Your task to perform on an android device: Open notification settings Image 0: 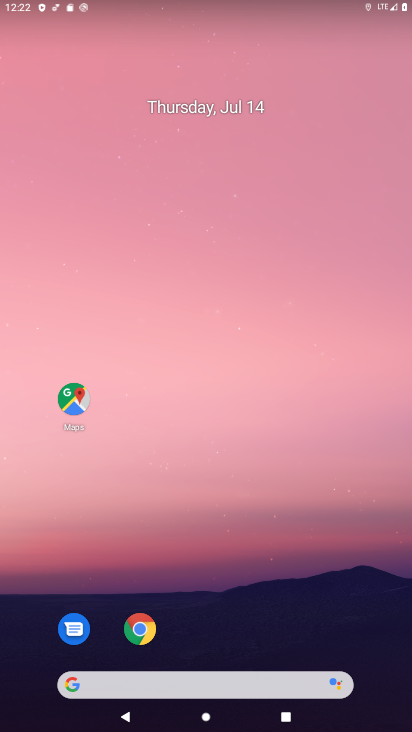
Step 0: drag from (315, 606) to (205, 0)
Your task to perform on an android device: Open notification settings Image 1: 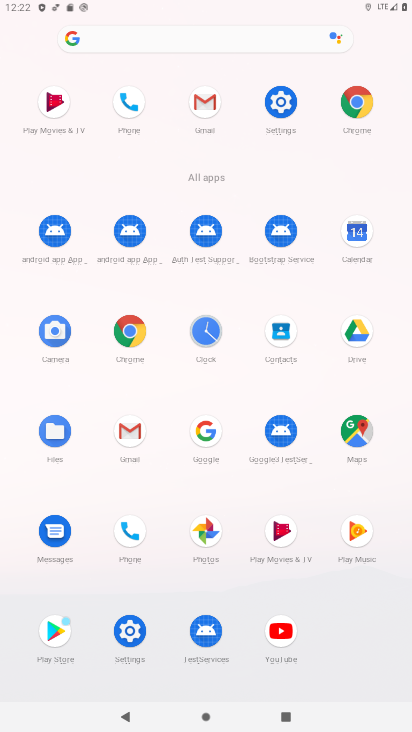
Step 1: click (292, 107)
Your task to perform on an android device: Open notification settings Image 2: 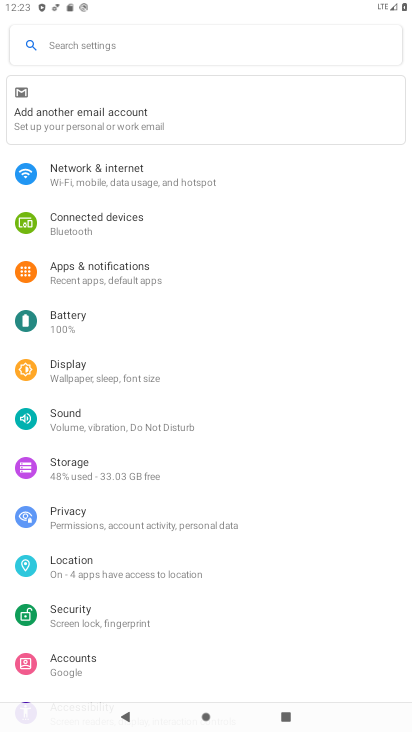
Step 2: click (133, 279)
Your task to perform on an android device: Open notification settings Image 3: 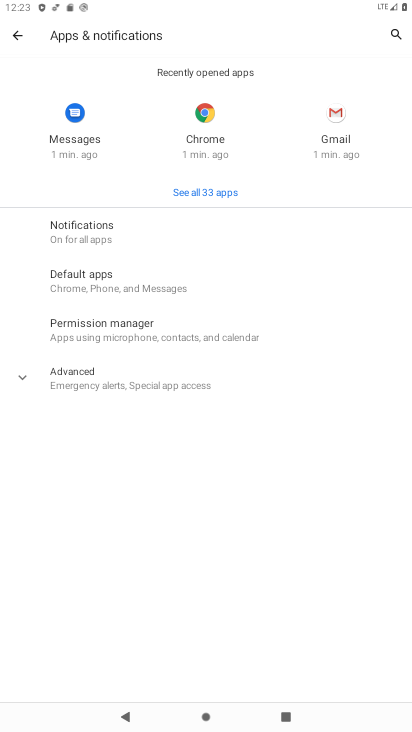
Step 3: click (107, 247)
Your task to perform on an android device: Open notification settings Image 4: 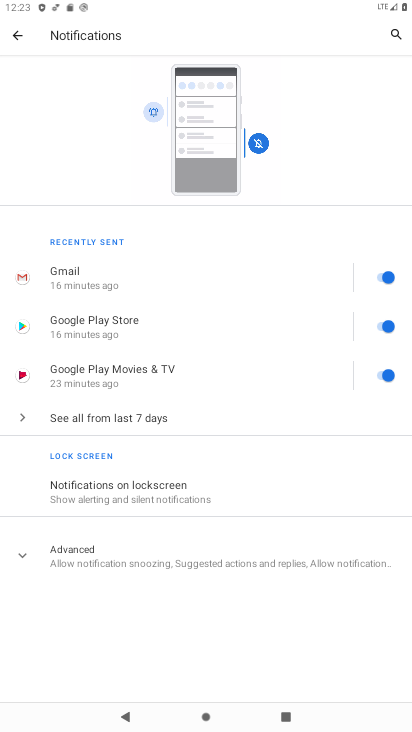
Step 4: task complete